Your task to perform on an android device: refresh tabs in the chrome app Image 0: 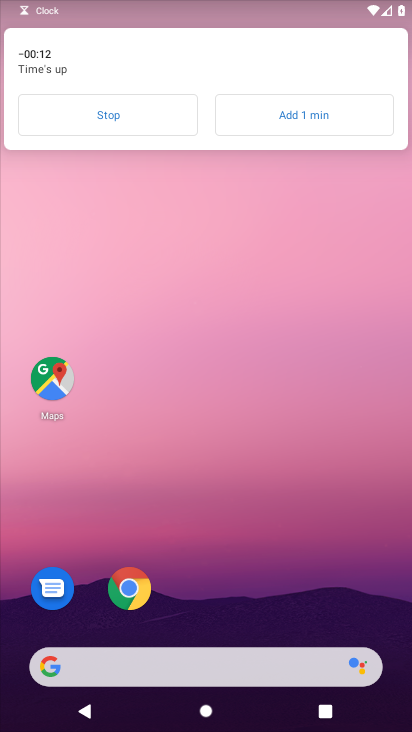
Step 0: click (131, 588)
Your task to perform on an android device: refresh tabs in the chrome app Image 1: 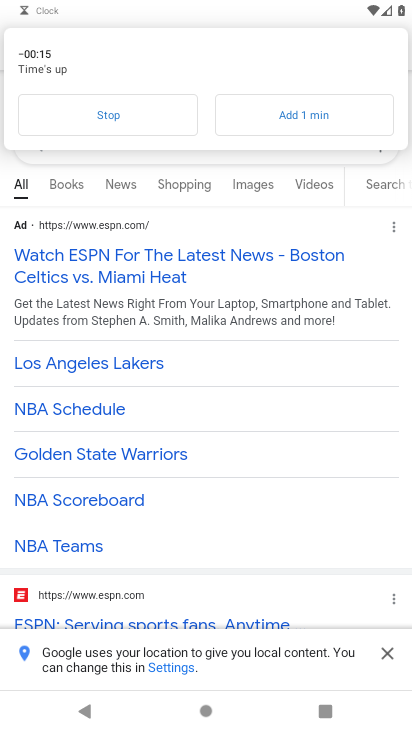
Step 1: click (138, 114)
Your task to perform on an android device: refresh tabs in the chrome app Image 2: 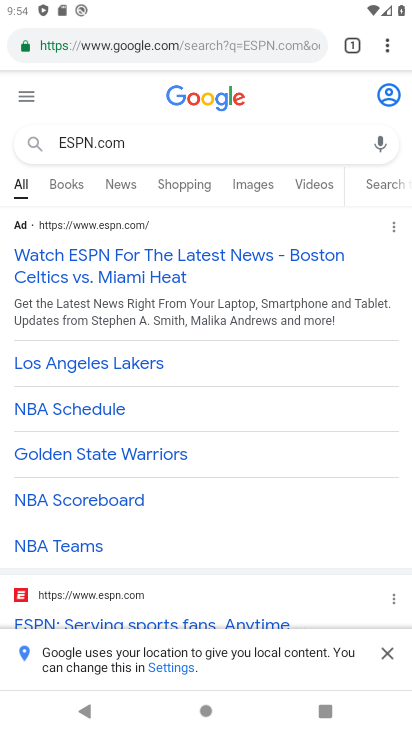
Step 2: click (389, 52)
Your task to perform on an android device: refresh tabs in the chrome app Image 3: 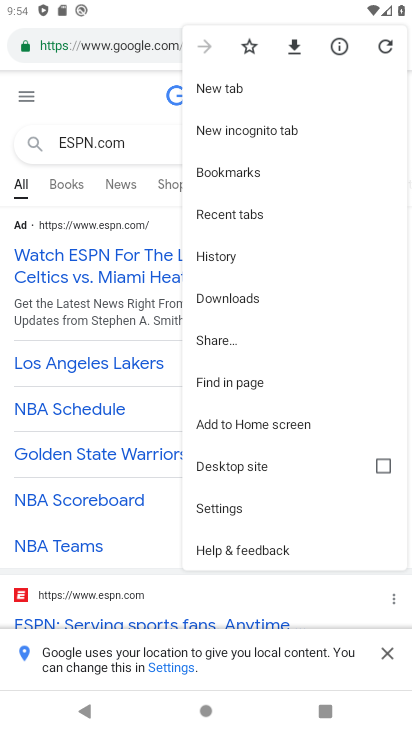
Step 3: click (385, 41)
Your task to perform on an android device: refresh tabs in the chrome app Image 4: 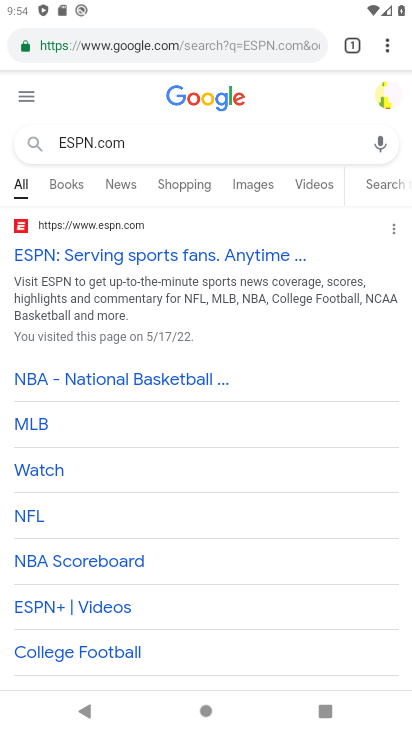
Step 4: task complete